Your task to perform on an android device: visit the assistant section in the google photos Image 0: 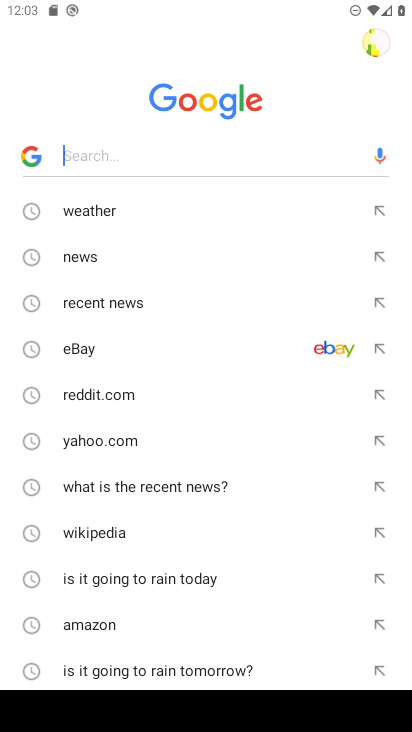
Step 0: press home button
Your task to perform on an android device: visit the assistant section in the google photos Image 1: 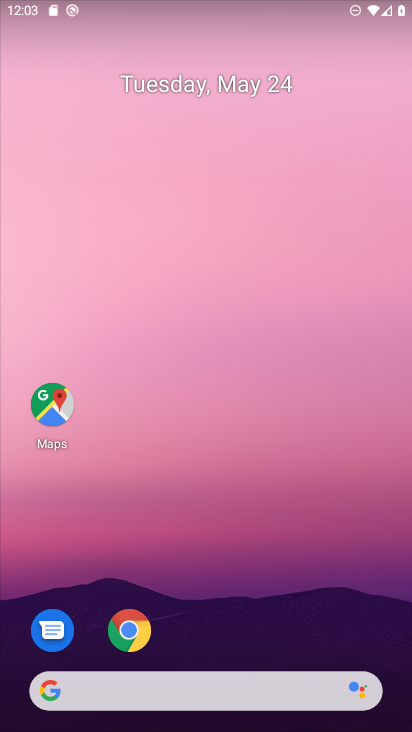
Step 1: drag from (232, 444) to (242, 92)
Your task to perform on an android device: visit the assistant section in the google photos Image 2: 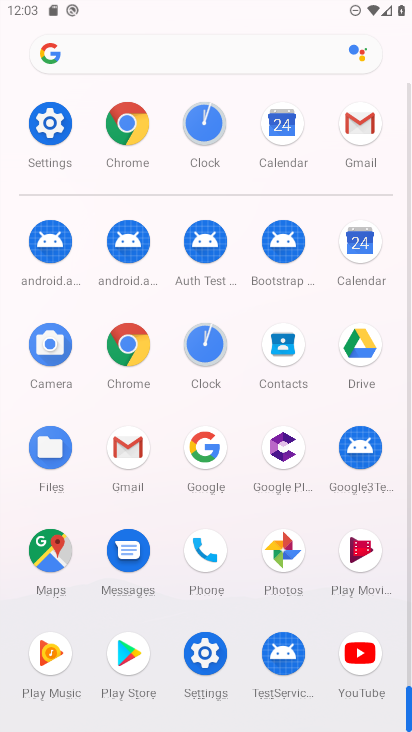
Step 2: click (279, 548)
Your task to perform on an android device: visit the assistant section in the google photos Image 3: 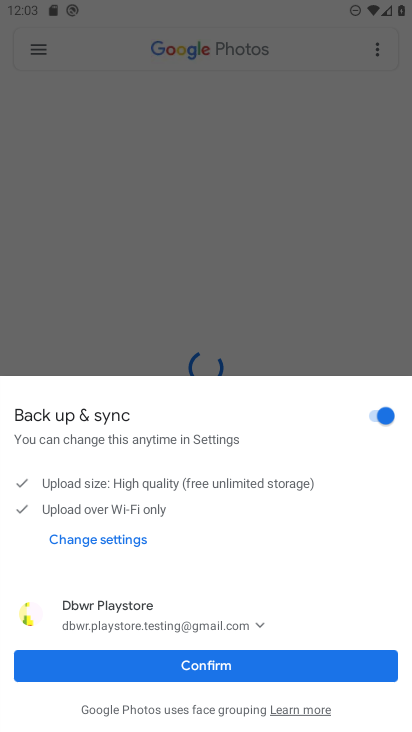
Step 3: click (245, 672)
Your task to perform on an android device: visit the assistant section in the google photos Image 4: 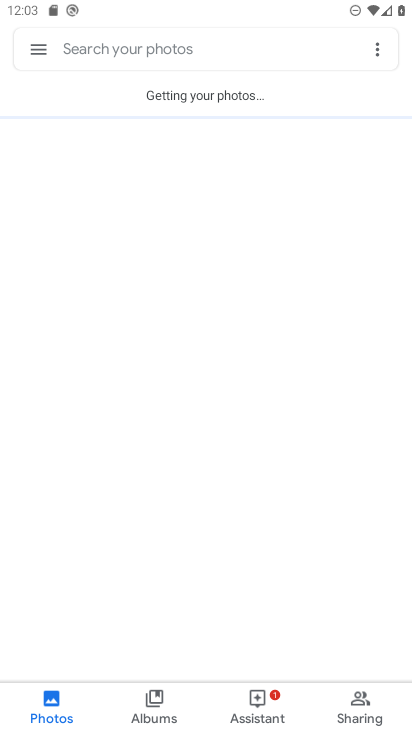
Step 4: click (252, 709)
Your task to perform on an android device: visit the assistant section in the google photos Image 5: 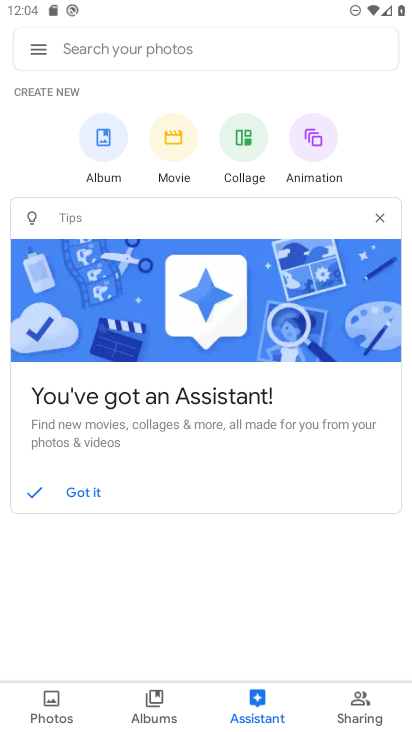
Step 5: task complete